Your task to perform on an android device: Go to Yahoo.com Image 0: 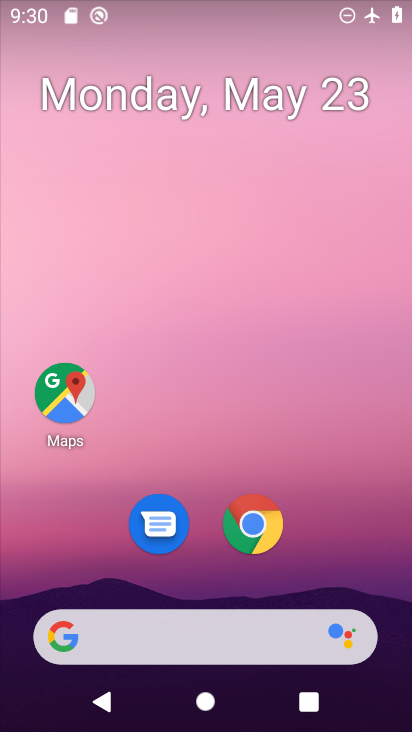
Step 0: click (223, 633)
Your task to perform on an android device: Go to Yahoo.com Image 1: 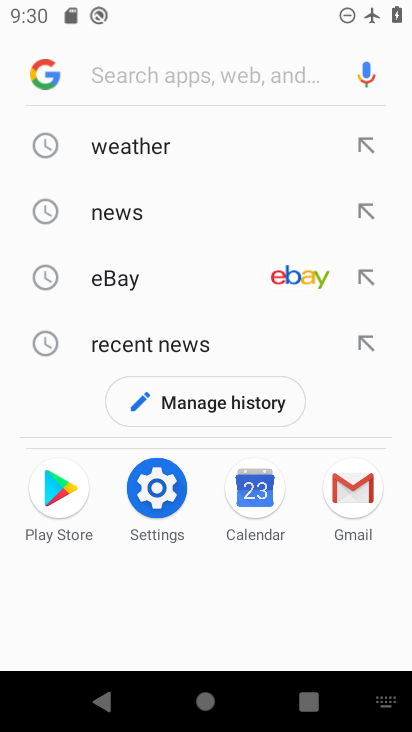
Step 1: type "yahoo.com"
Your task to perform on an android device: Go to Yahoo.com Image 2: 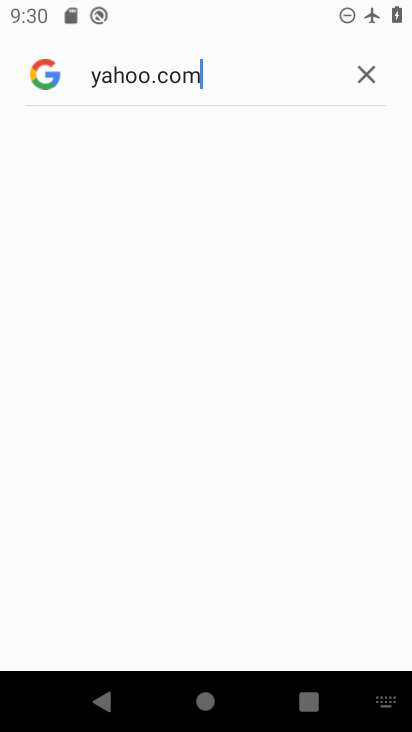
Step 2: task complete